Your task to perform on an android device: Open display settings Image 0: 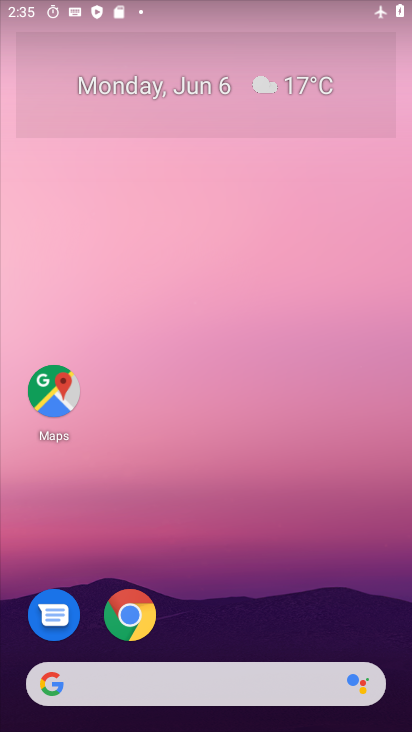
Step 0: drag from (211, 625) to (263, 252)
Your task to perform on an android device: Open display settings Image 1: 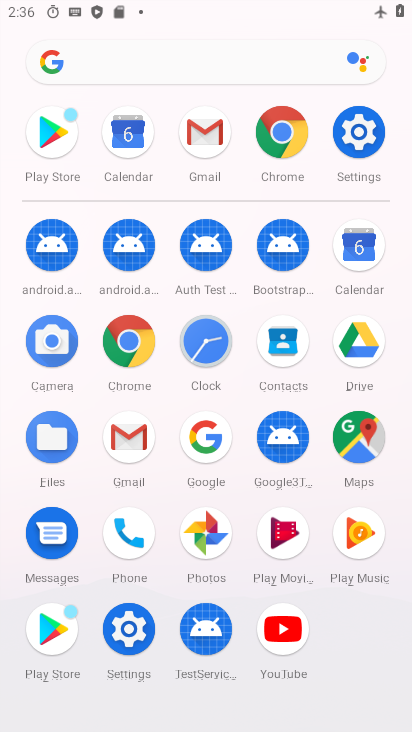
Step 1: click (348, 143)
Your task to perform on an android device: Open display settings Image 2: 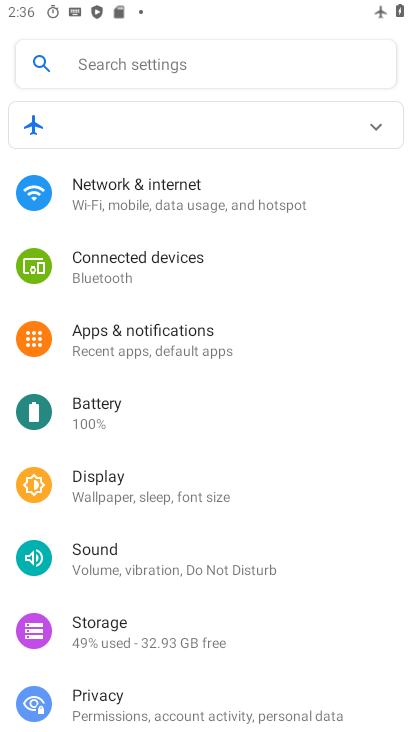
Step 2: click (144, 485)
Your task to perform on an android device: Open display settings Image 3: 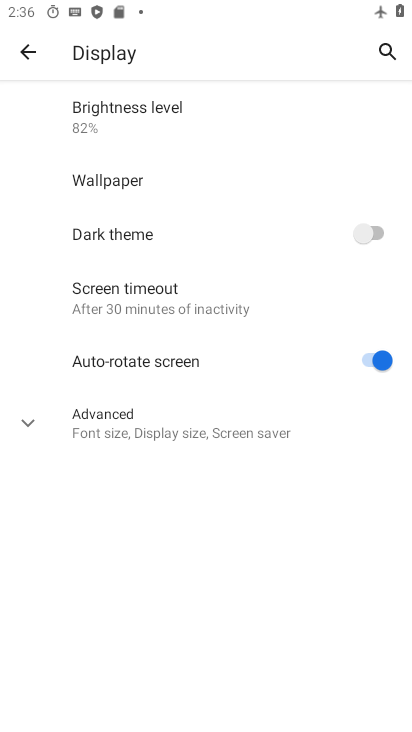
Step 3: task complete